Your task to perform on an android device: find snoozed emails in the gmail app Image 0: 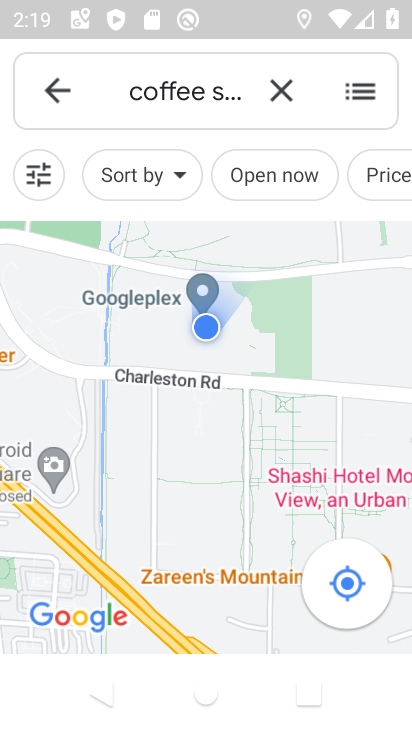
Step 0: press home button
Your task to perform on an android device: find snoozed emails in the gmail app Image 1: 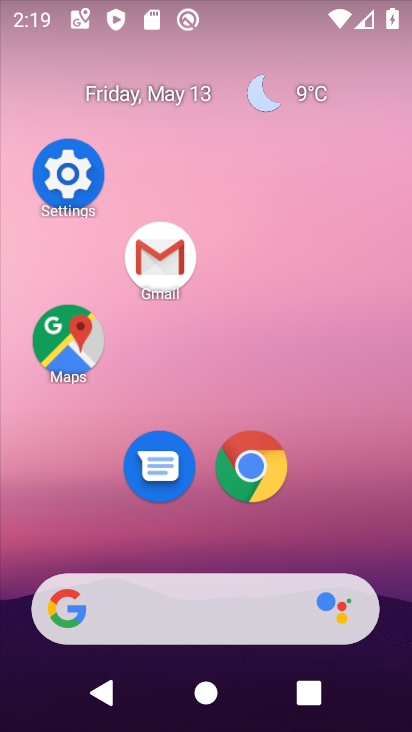
Step 1: click (159, 276)
Your task to perform on an android device: find snoozed emails in the gmail app Image 2: 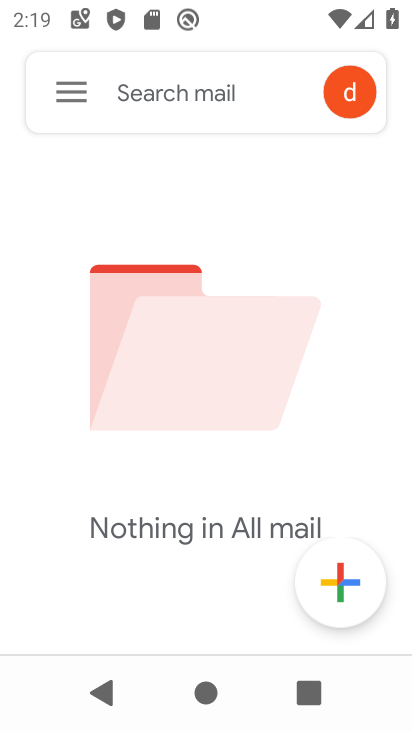
Step 2: click (70, 108)
Your task to perform on an android device: find snoozed emails in the gmail app Image 3: 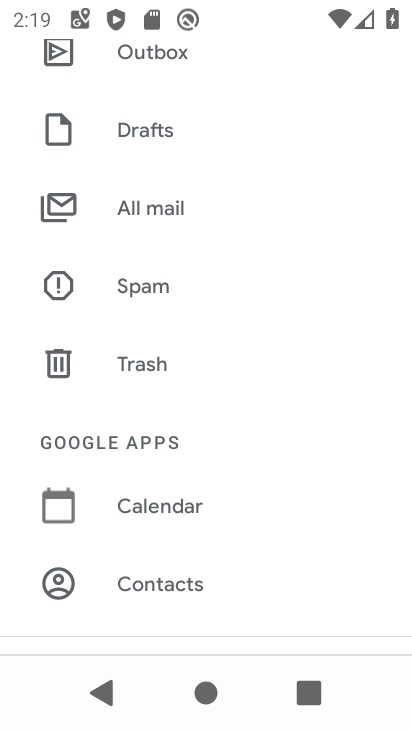
Step 3: drag from (232, 128) to (262, 568)
Your task to perform on an android device: find snoozed emails in the gmail app Image 4: 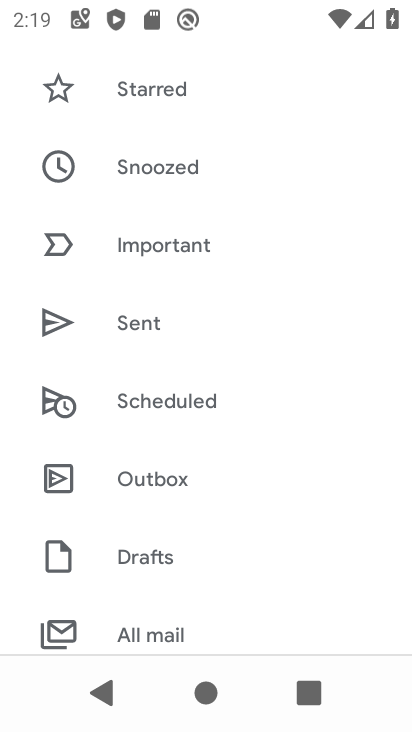
Step 4: click (184, 182)
Your task to perform on an android device: find snoozed emails in the gmail app Image 5: 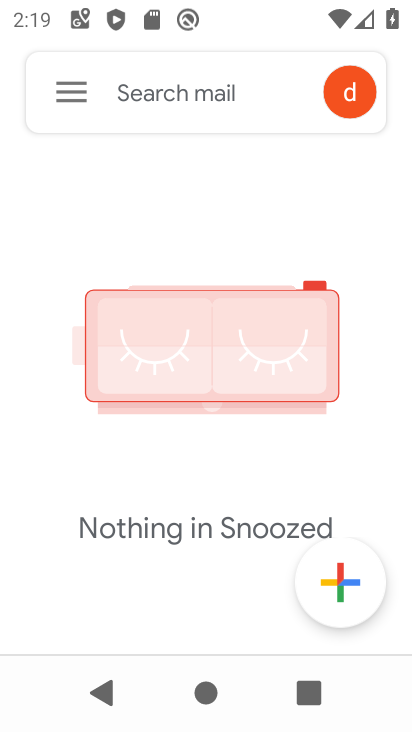
Step 5: task complete